Your task to perform on an android device: manage bookmarks in the chrome app Image 0: 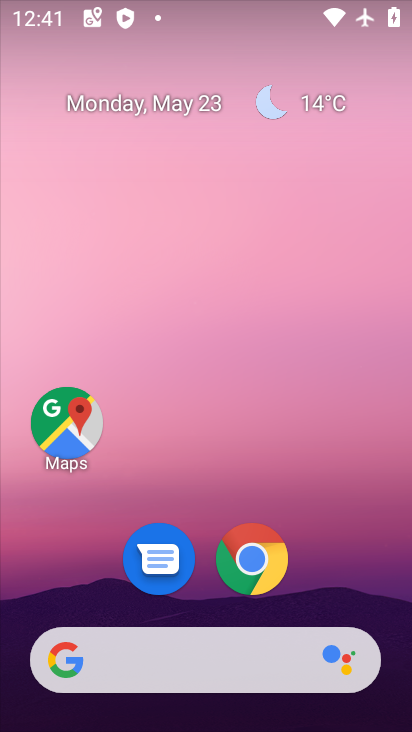
Step 0: click (261, 559)
Your task to perform on an android device: manage bookmarks in the chrome app Image 1: 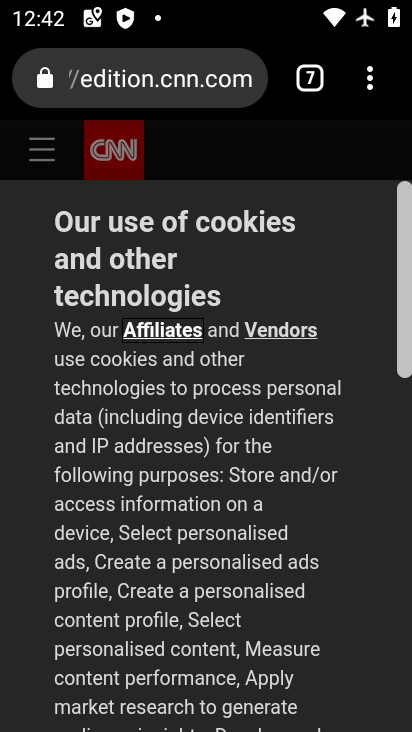
Step 1: click (374, 81)
Your task to perform on an android device: manage bookmarks in the chrome app Image 2: 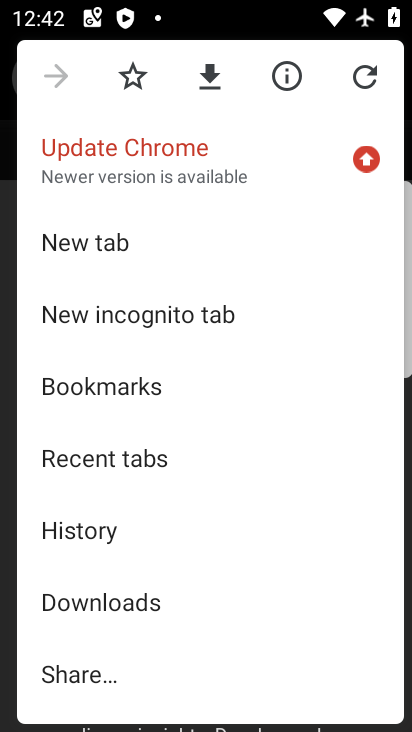
Step 2: click (89, 386)
Your task to perform on an android device: manage bookmarks in the chrome app Image 3: 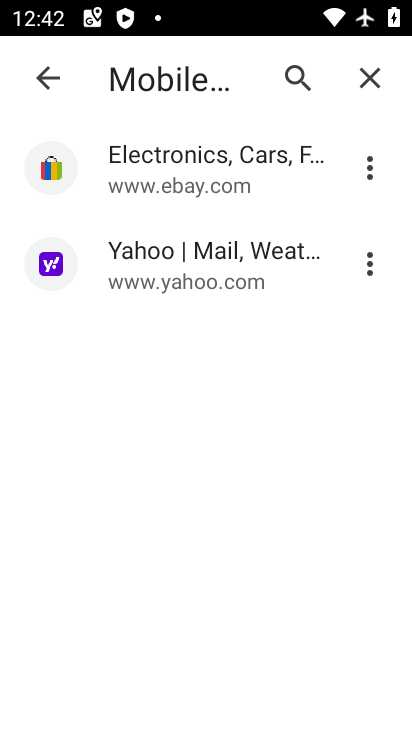
Step 3: click (372, 160)
Your task to perform on an android device: manage bookmarks in the chrome app Image 4: 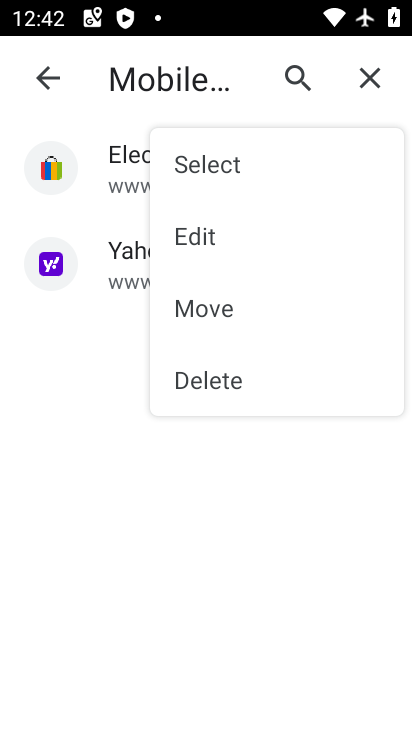
Step 4: click (197, 306)
Your task to perform on an android device: manage bookmarks in the chrome app Image 5: 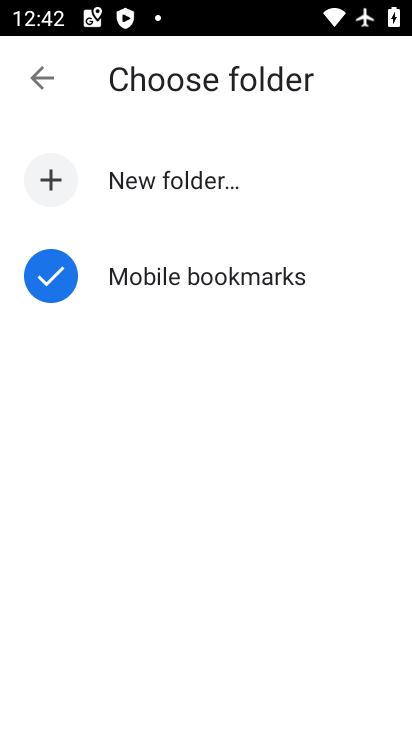
Step 5: click (173, 278)
Your task to perform on an android device: manage bookmarks in the chrome app Image 6: 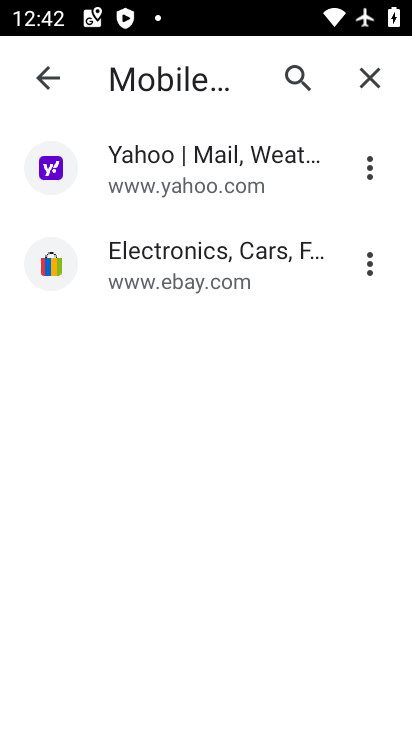
Step 6: click (370, 170)
Your task to perform on an android device: manage bookmarks in the chrome app Image 7: 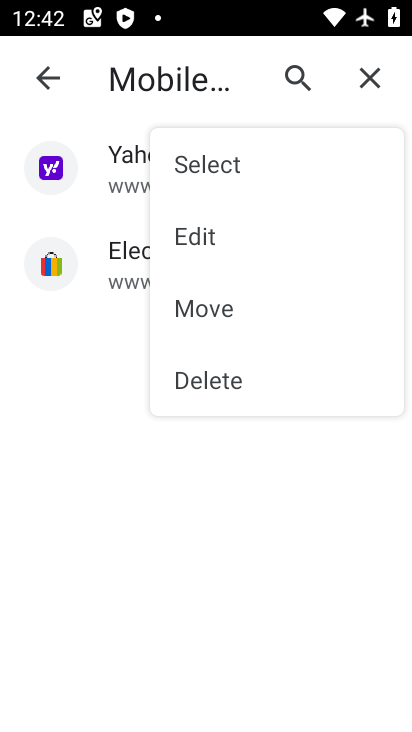
Step 7: click (204, 238)
Your task to perform on an android device: manage bookmarks in the chrome app Image 8: 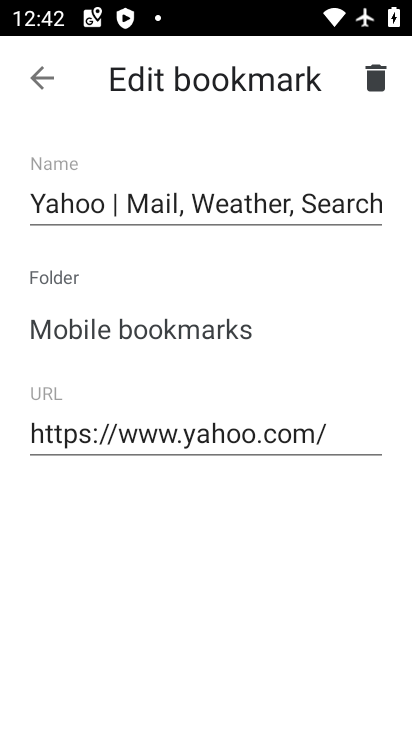
Step 8: click (45, 85)
Your task to perform on an android device: manage bookmarks in the chrome app Image 9: 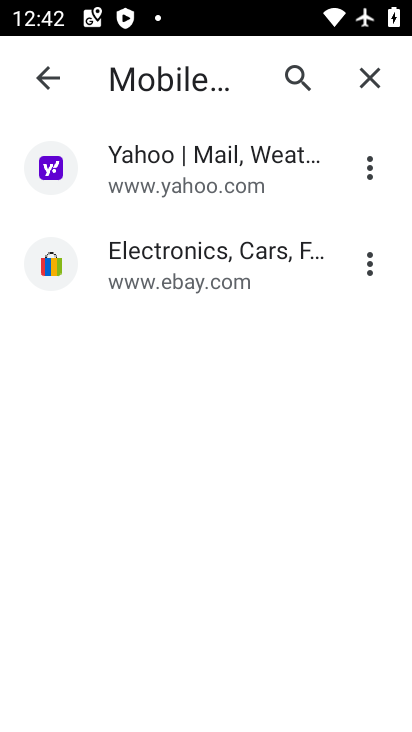
Step 9: click (363, 268)
Your task to perform on an android device: manage bookmarks in the chrome app Image 10: 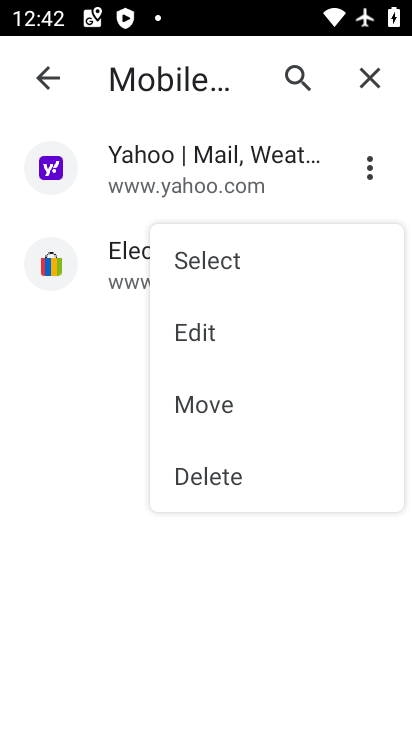
Step 10: click (211, 480)
Your task to perform on an android device: manage bookmarks in the chrome app Image 11: 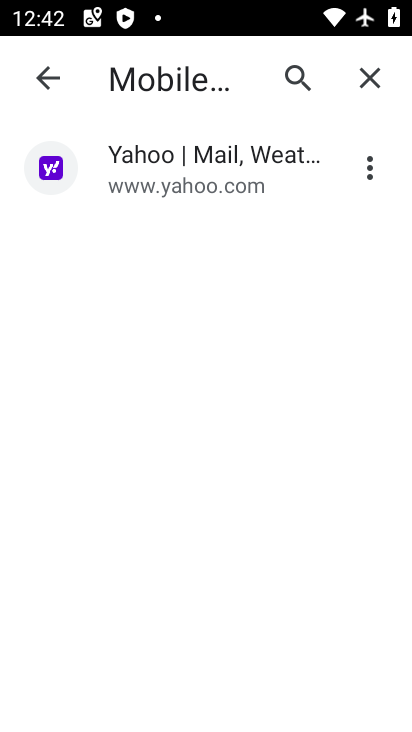
Step 11: task complete